Your task to perform on an android device: change alarm snooze length Image 0: 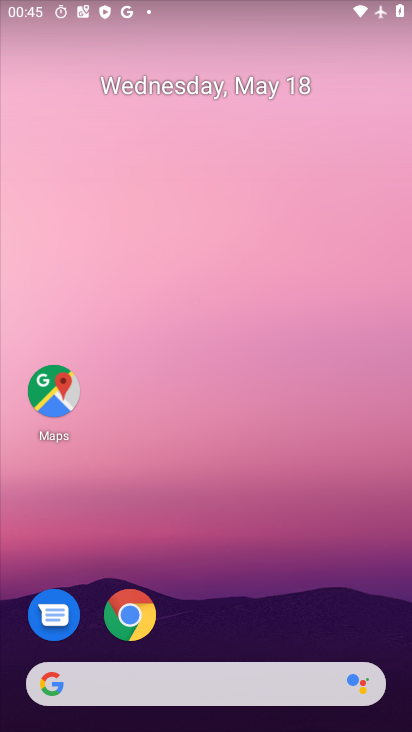
Step 0: drag from (220, 632) to (187, 237)
Your task to perform on an android device: change alarm snooze length Image 1: 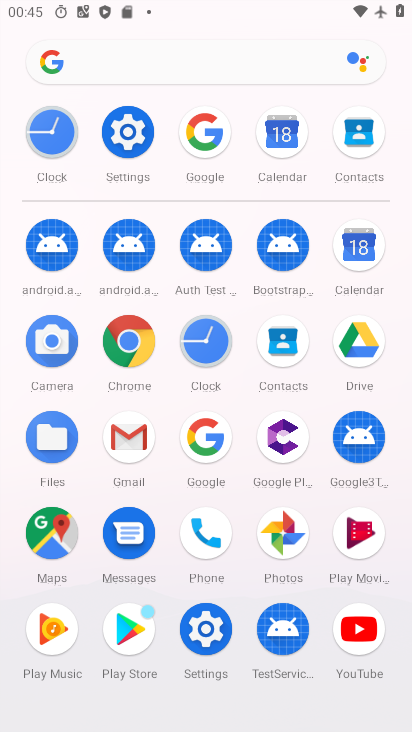
Step 1: click (196, 344)
Your task to perform on an android device: change alarm snooze length Image 2: 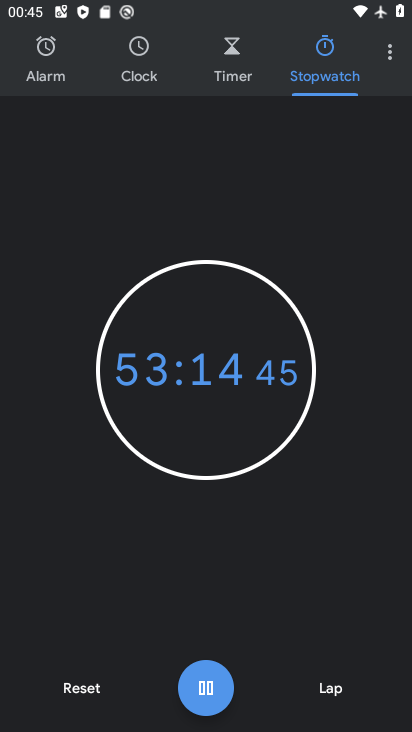
Step 2: click (393, 51)
Your task to perform on an android device: change alarm snooze length Image 3: 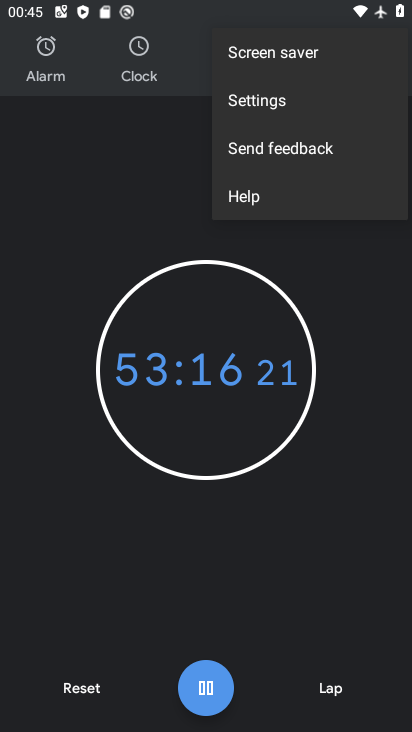
Step 3: click (289, 99)
Your task to perform on an android device: change alarm snooze length Image 4: 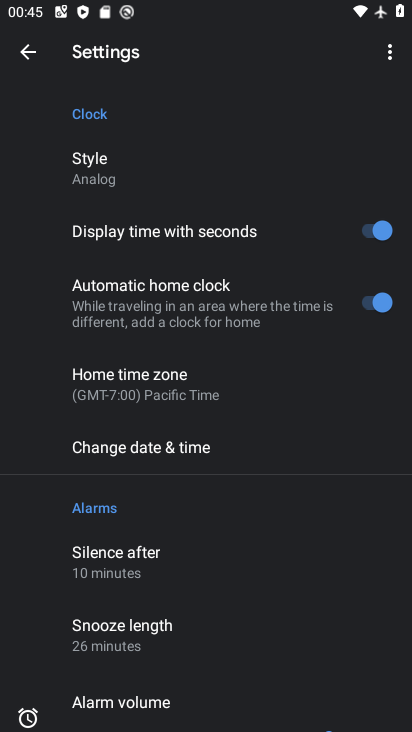
Step 4: click (128, 638)
Your task to perform on an android device: change alarm snooze length Image 5: 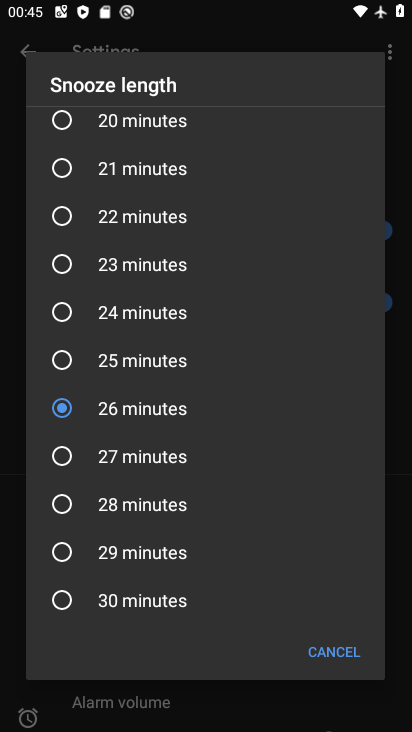
Step 5: click (140, 275)
Your task to perform on an android device: change alarm snooze length Image 6: 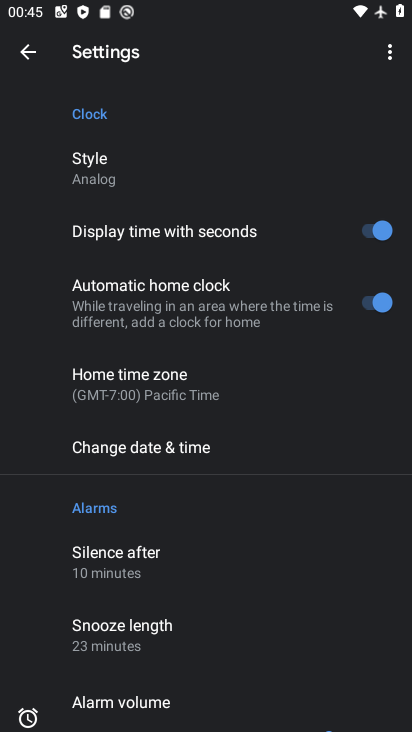
Step 6: task complete